Your task to perform on an android device: open the mobile data screen to see how much data has been used Image 0: 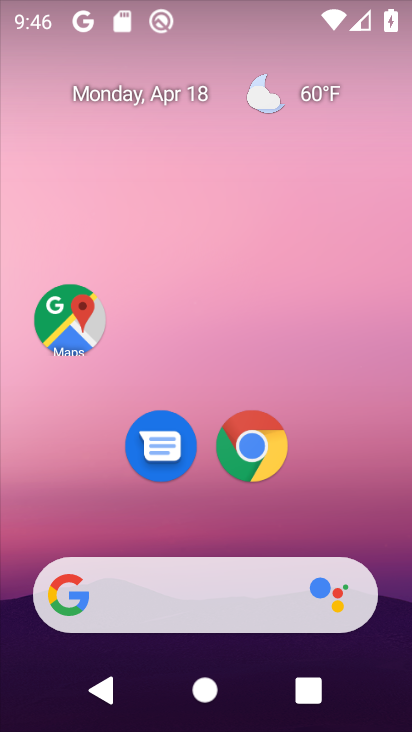
Step 0: drag from (365, 529) to (356, 109)
Your task to perform on an android device: open the mobile data screen to see how much data has been used Image 1: 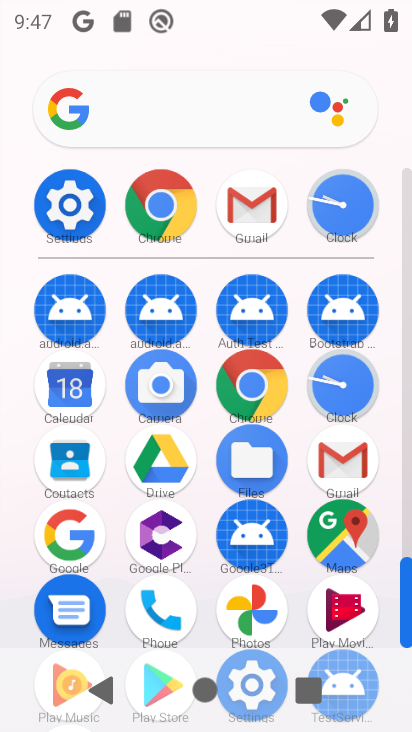
Step 1: click (68, 209)
Your task to perform on an android device: open the mobile data screen to see how much data has been used Image 2: 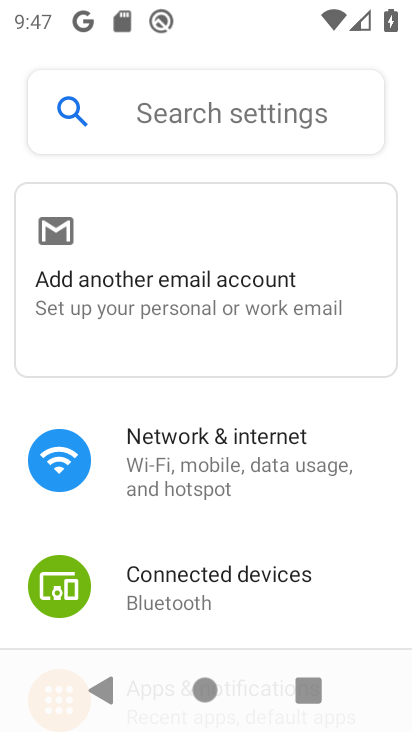
Step 2: click (247, 465)
Your task to perform on an android device: open the mobile data screen to see how much data has been used Image 3: 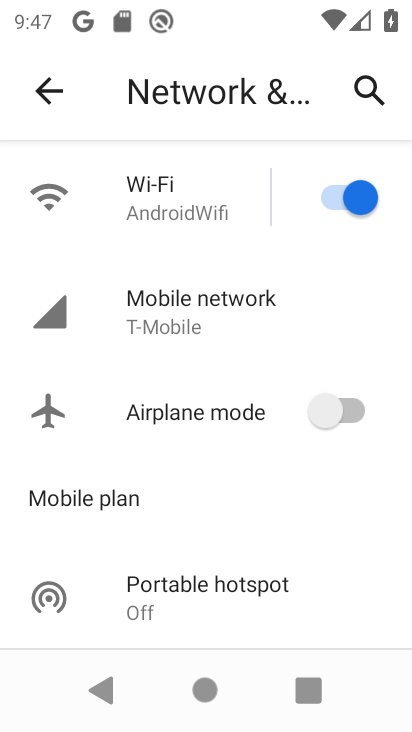
Step 3: click (175, 301)
Your task to perform on an android device: open the mobile data screen to see how much data has been used Image 4: 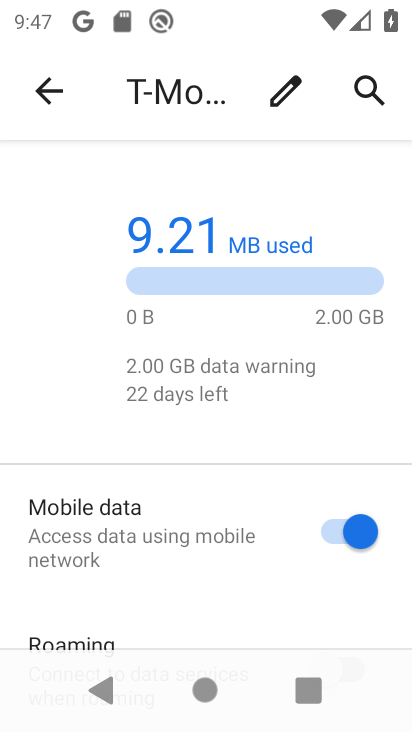
Step 4: drag from (280, 565) to (263, 269)
Your task to perform on an android device: open the mobile data screen to see how much data has been used Image 5: 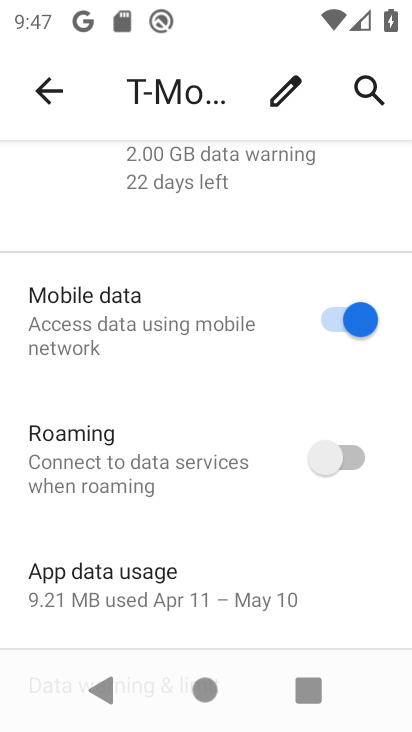
Step 5: drag from (266, 522) to (249, 263)
Your task to perform on an android device: open the mobile data screen to see how much data has been used Image 6: 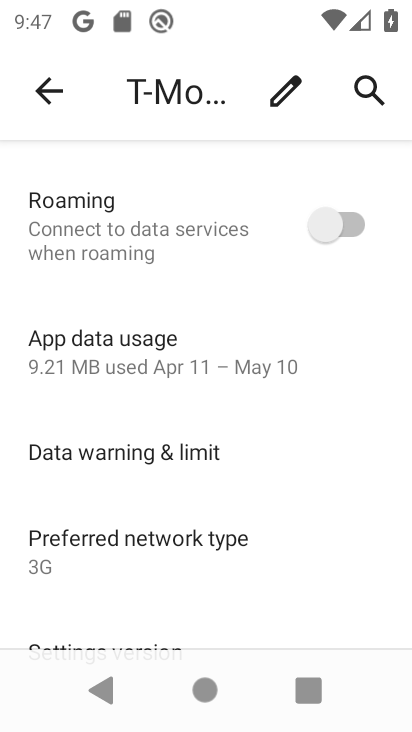
Step 6: click (199, 363)
Your task to perform on an android device: open the mobile data screen to see how much data has been used Image 7: 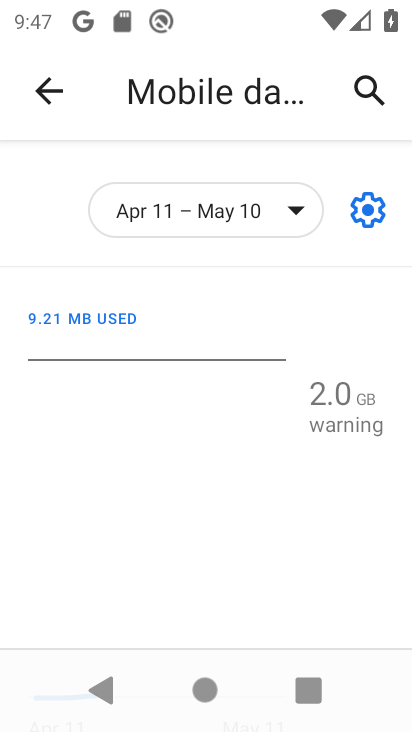
Step 7: task complete